Your task to perform on an android device: visit the assistant section in the google photos Image 0: 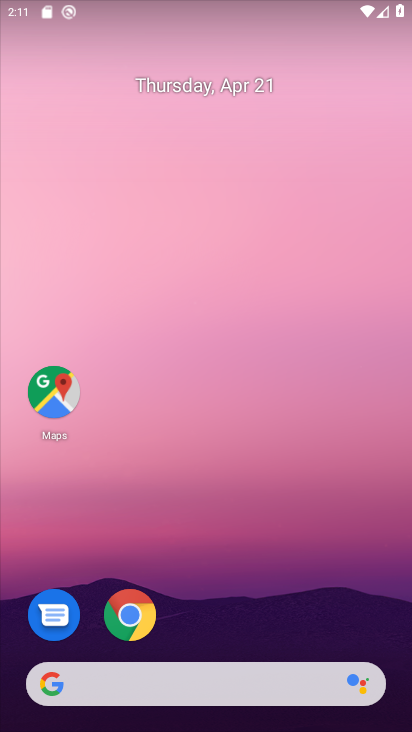
Step 0: drag from (212, 532) to (292, 9)
Your task to perform on an android device: visit the assistant section in the google photos Image 1: 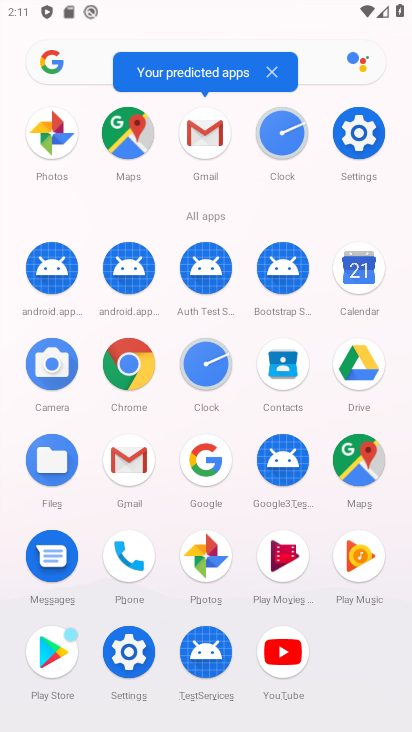
Step 1: click (208, 555)
Your task to perform on an android device: visit the assistant section in the google photos Image 2: 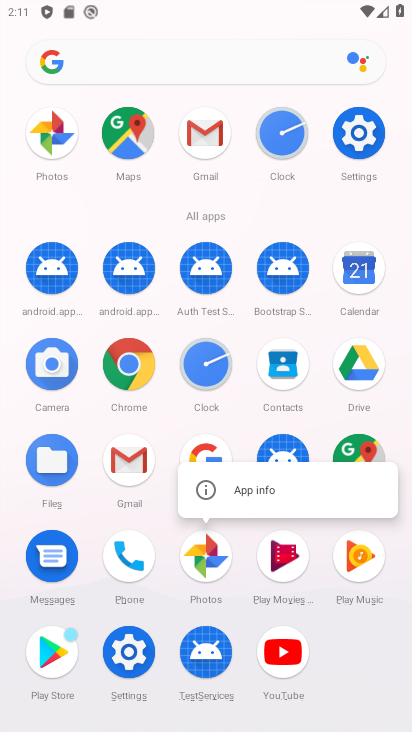
Step 2: click (223, 561)
Your task to perform on an android device: visit the assistant section in the google photos Image 3: 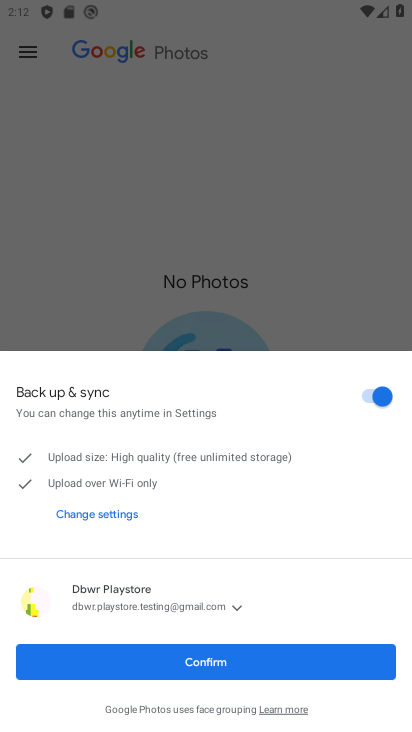
Step 3: click (187, 668)
Your task to perform on an android device: visit the assistant section in the google photos Image 4: 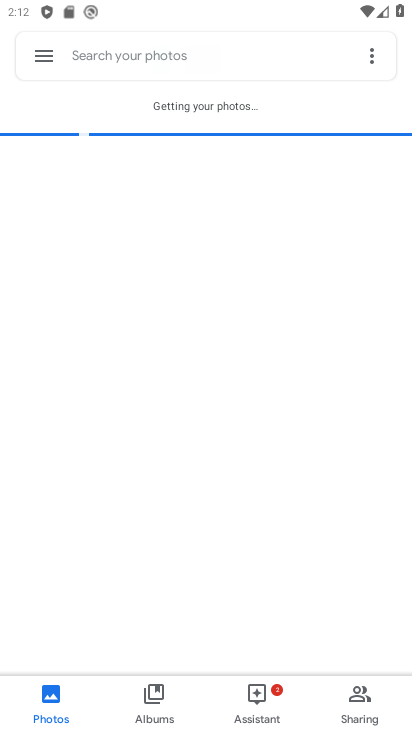
Step 4: click (249, 703)
Your task to perform on an android device: visit the assistant section in the google photos Image 5: 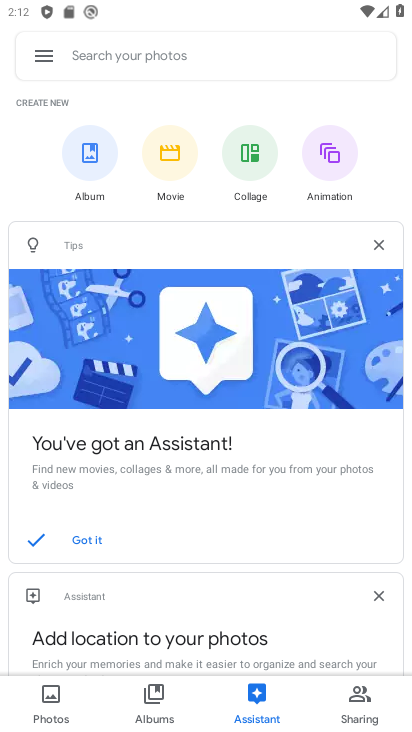
Step 5: task complete